Your task to perform on an android device: Open Google Chrome Image 0: 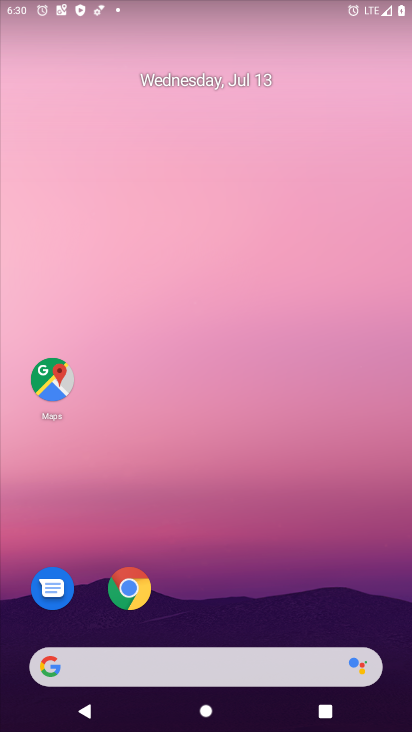
Step 0: click (126, 594)
Your task to perform on an android device: Open Google Chrome Image 1: 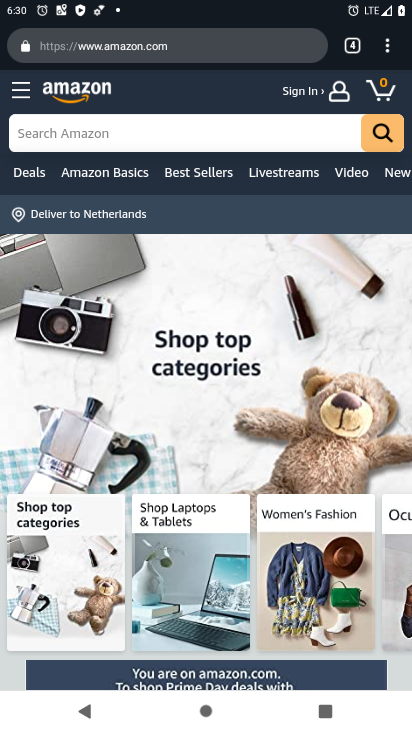
Step 1: task complete